Your task to perform on an android device: change your default location settings in chrome Image 0: 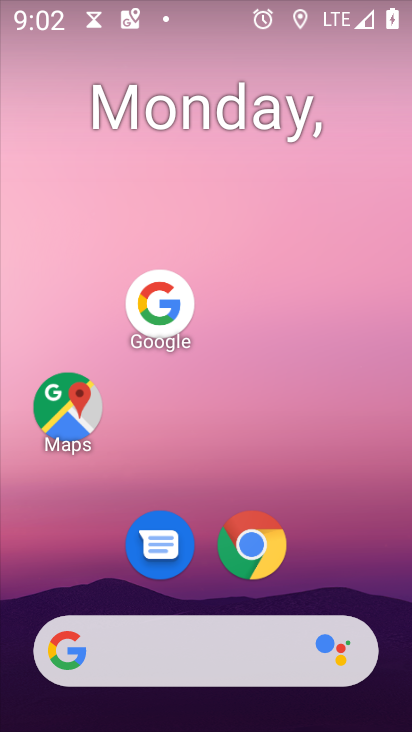
Step 0: press home button
Your task to perform on an android device: change your default location settings in chrome Image 1: 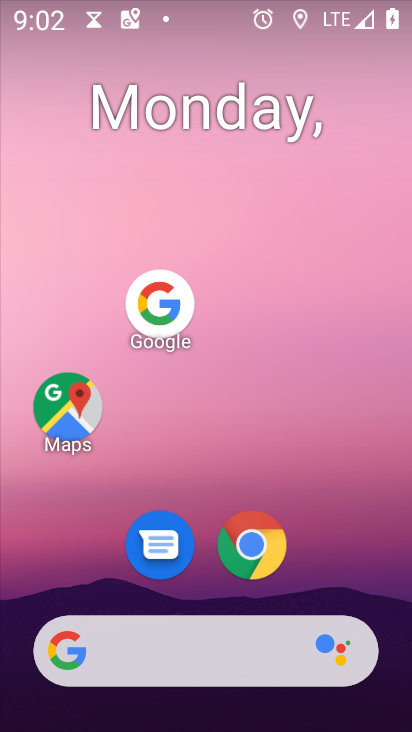
Step 1: click (249, 542)
Your task to perform on an android device: change your default location settings in chrome Image 2: 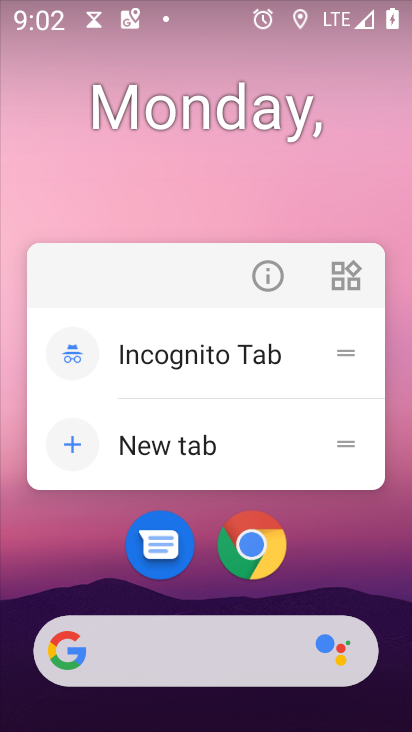
Step 2: click (241, 553)
Your task to perform on an android device: change your default location settings in chrome Image 3: 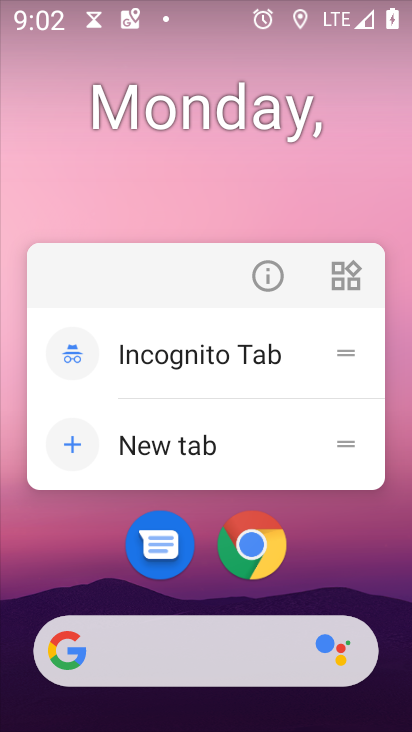
Step 3: click (246, 551)
Your task to perform on an android device: change your default location settings in chrome Image 4: 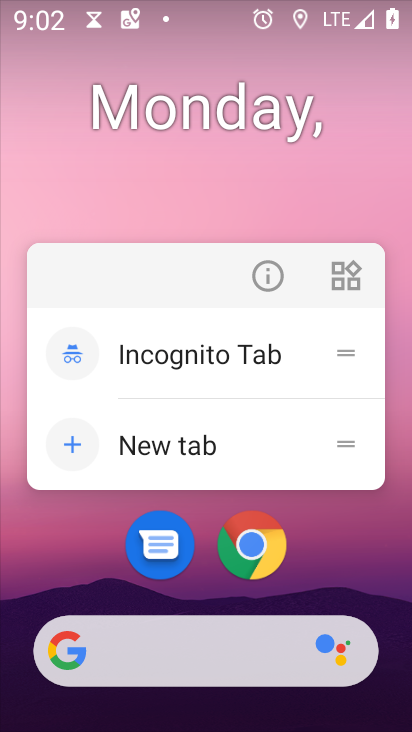
Step 4: click (246, 551)
Your task to perform on an android device: change your default location settings in chrome Image 5: 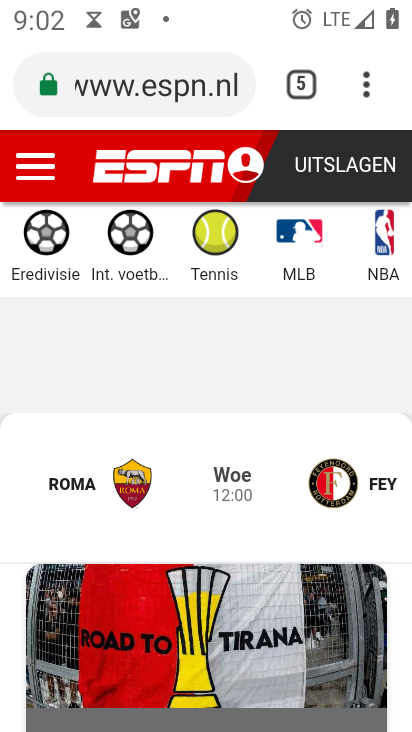
Step 5: drag from (368, 87) to (185, 591)
Your task to perform on an android device: change your default location settings in chrome Image 6: 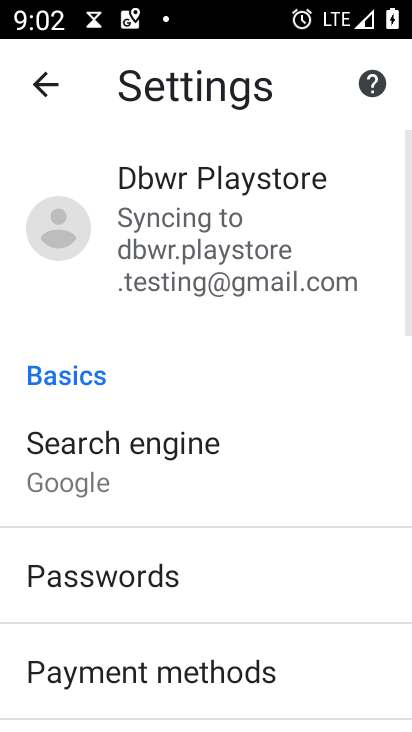
Step 6: drag from (191, 622) to (377, 141)
Your task to perform on an android device: change your default location settings in chrome Image 7: 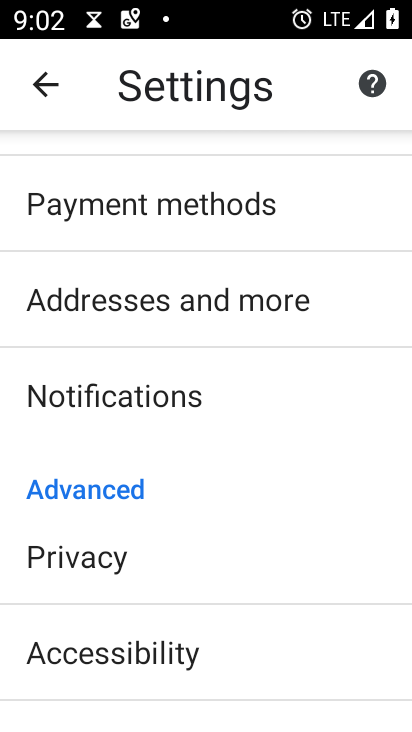
Step 7: drag from (256, 636) to (284, 154)
Your task to perform on an android device: change your default location settings in chrome Image 8: 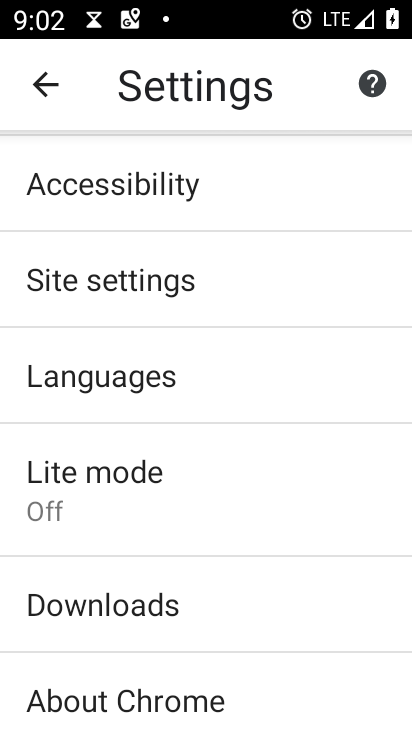
Step 8: click (180, 293)
Your task to perform on an android device: change your default location settings in chrome Image 9: 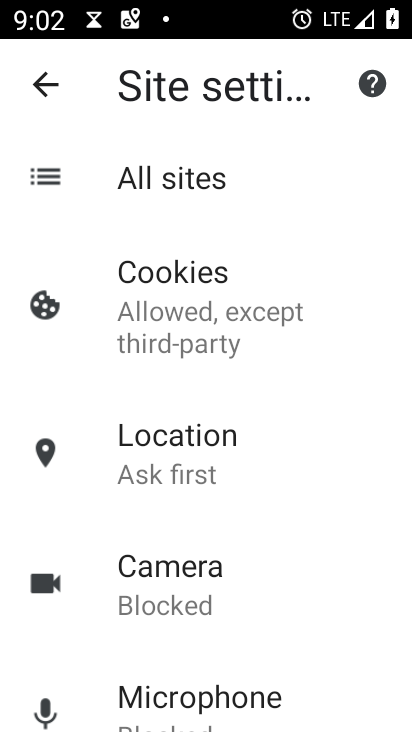
Step 9: click (197, 482)
Your task to perform on an android device: change your default location settings in chrome Image 10: 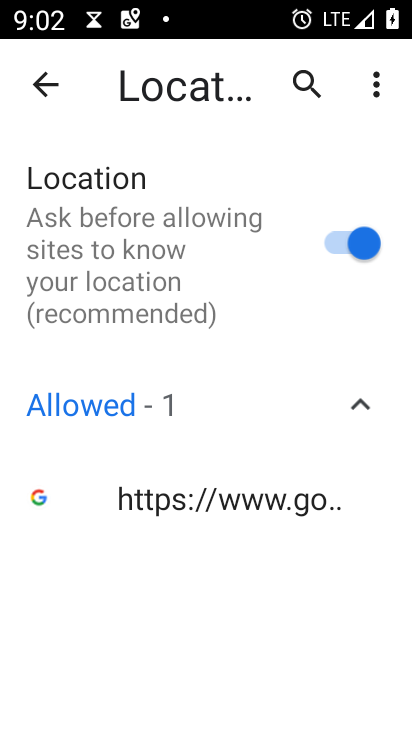
Step 10: click (334, 246)
Your task to perform on an android device: change your default location settings in chrome Image 11: 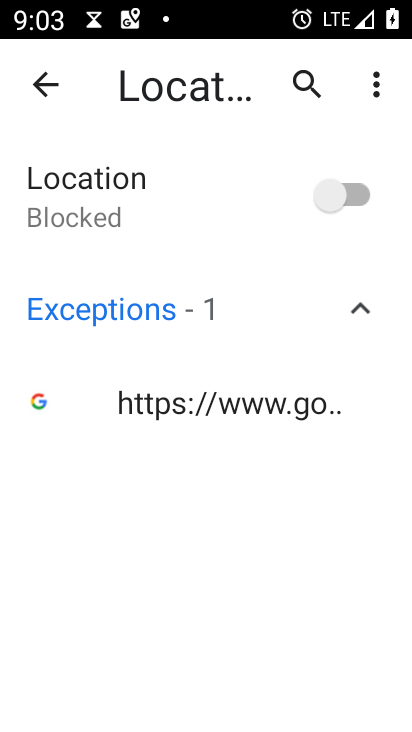
Step 11: task complete